Your task to perform on an android device: Search for razer thresher on amazon.com, select the first entry, add it to the cart, then select checkout. Image 0: 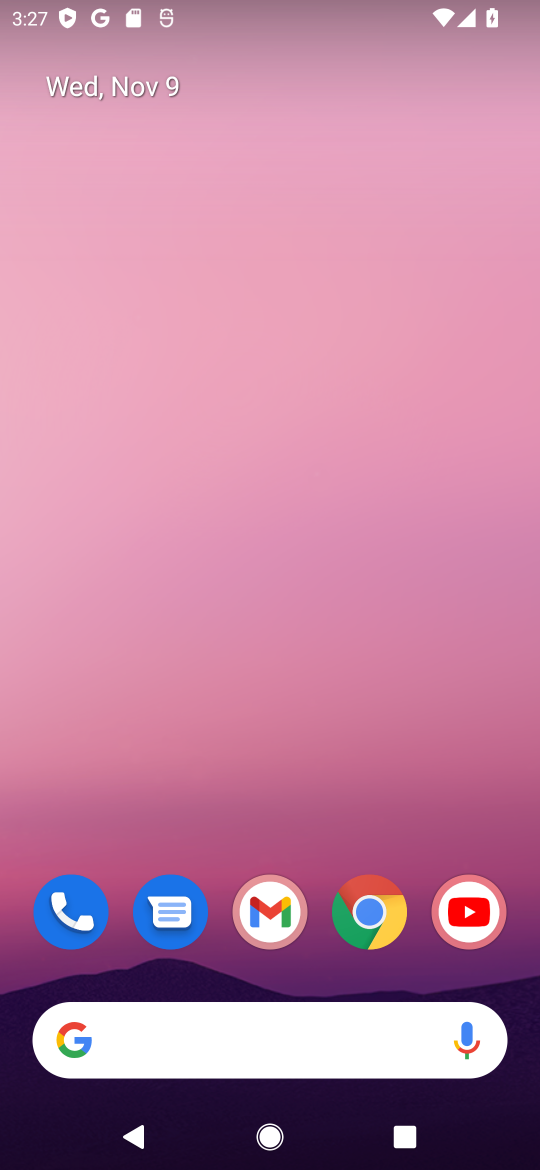
Step 0: click (374, 913)
Your task to perform on an android device: Search for razer thresher on amazon.com, select the first entry, add it to the cart, then select checkout. Image 1: 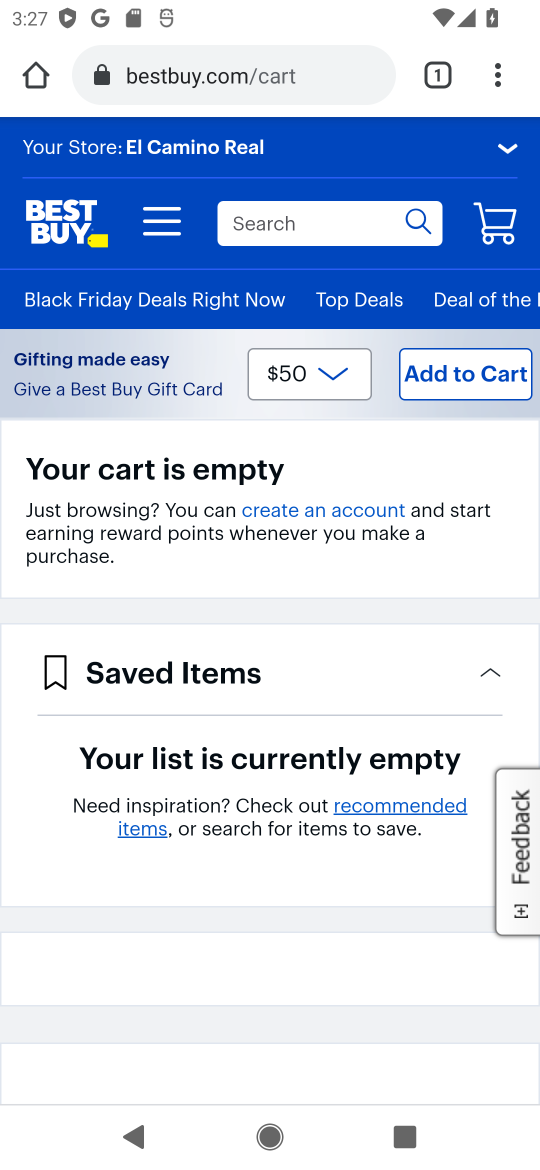
Step 1: click (310, 65)
Your task to perform on an android device: Search for razer thresher on amazon.com, select the first entry, add it to the cart, then select checkout. Image 2: 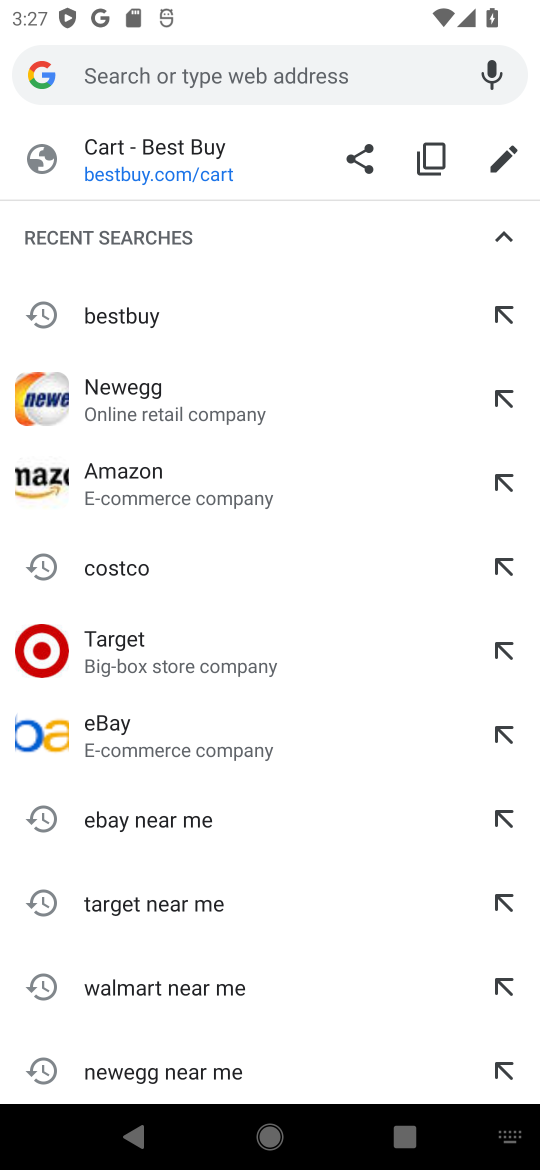
Step 2: type "amazon.com"
Your task to perform on an android device: Search for razer thresher on amazon.com, select the first entry, add it to the cart, then select checkout. Image 3: 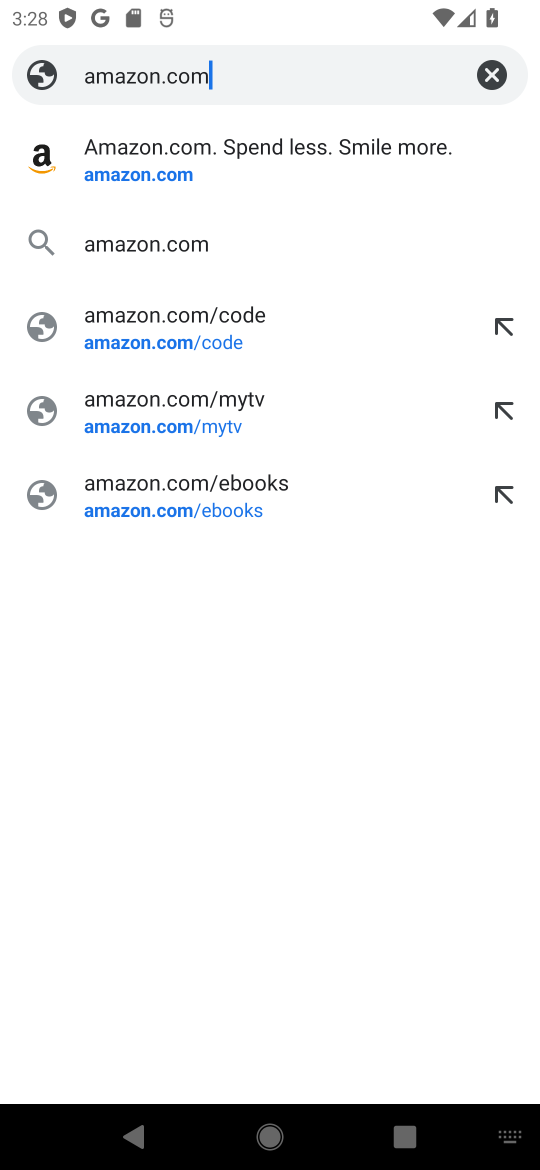
Step 3: click (181, 250)
Your task to perform on an android device: Search for razer thresher on amazon.com, select the first entry, add it to the cart, then select checkout. Image 4: 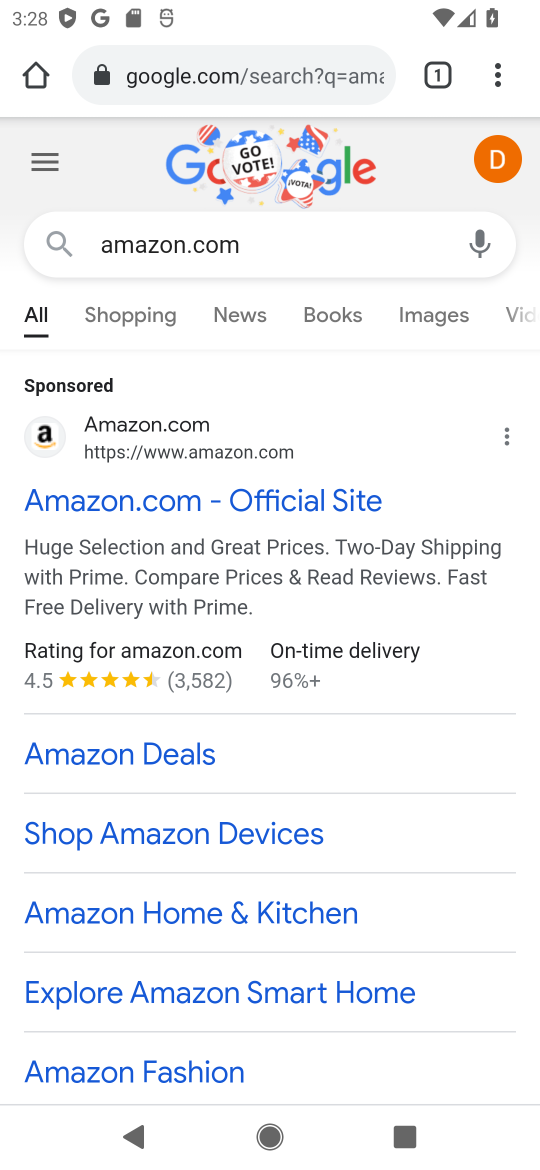
Step 4: drag from (222, 822) to (241, 430)
Your task to perform on an android device: Search for razer thresher on amazon.com, select the first entry, add it to the cart, then select checkout. Image 5: 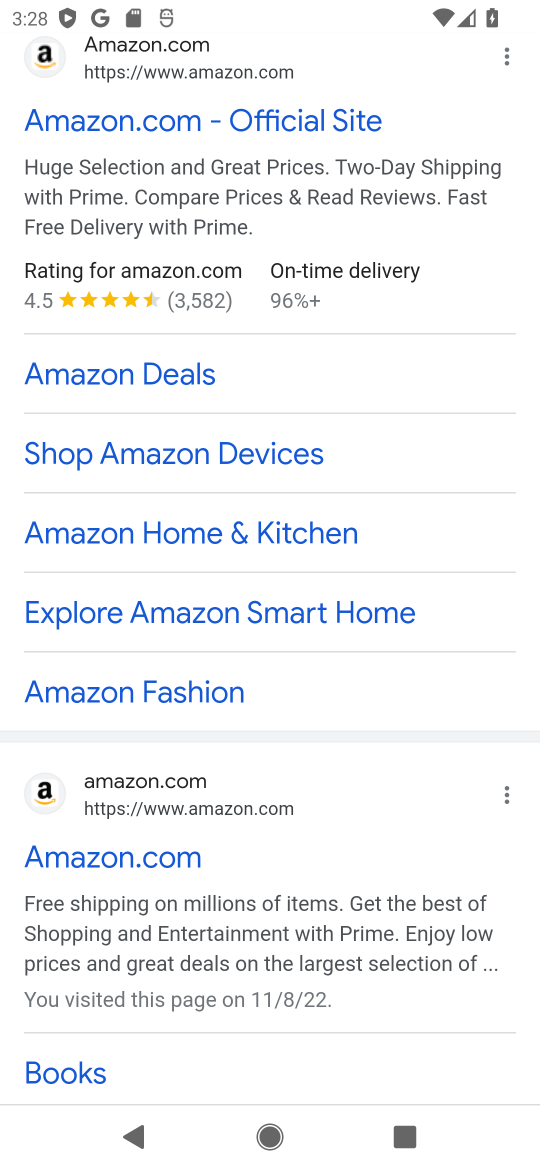
Step 5: click (162, 863)
Your task to perform on an android device: Search for razer thresher on amazon.com, select the first entry, add it to the cart, then select checkout. Image 6: 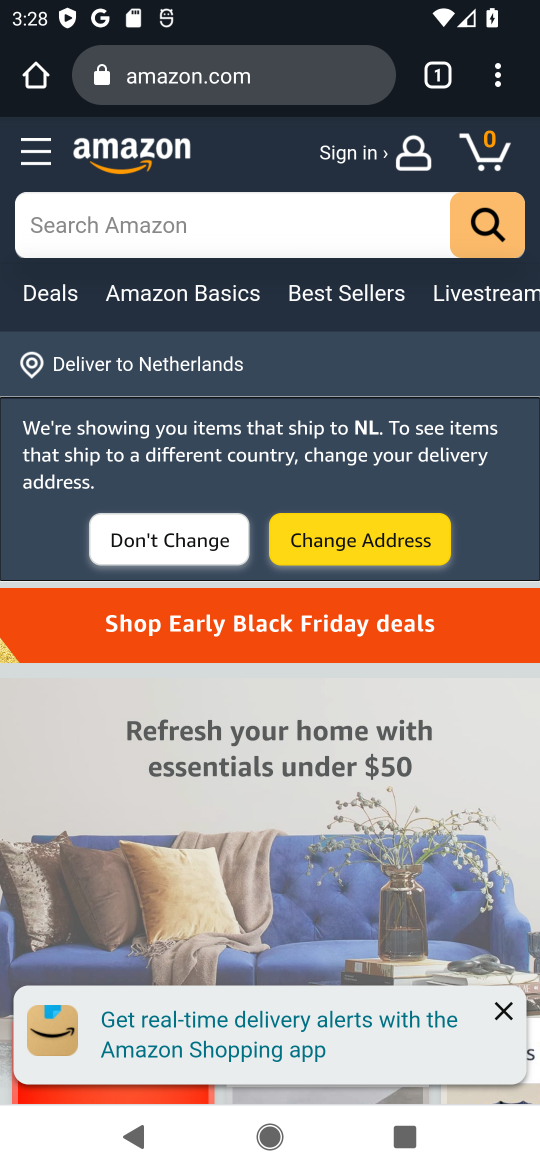
Step 6: click (253, 235)
Your task to perform on an android device: Search for razer thresher on amazon.com, select the first entry, add it to the cart, then select checkout. Image 7: 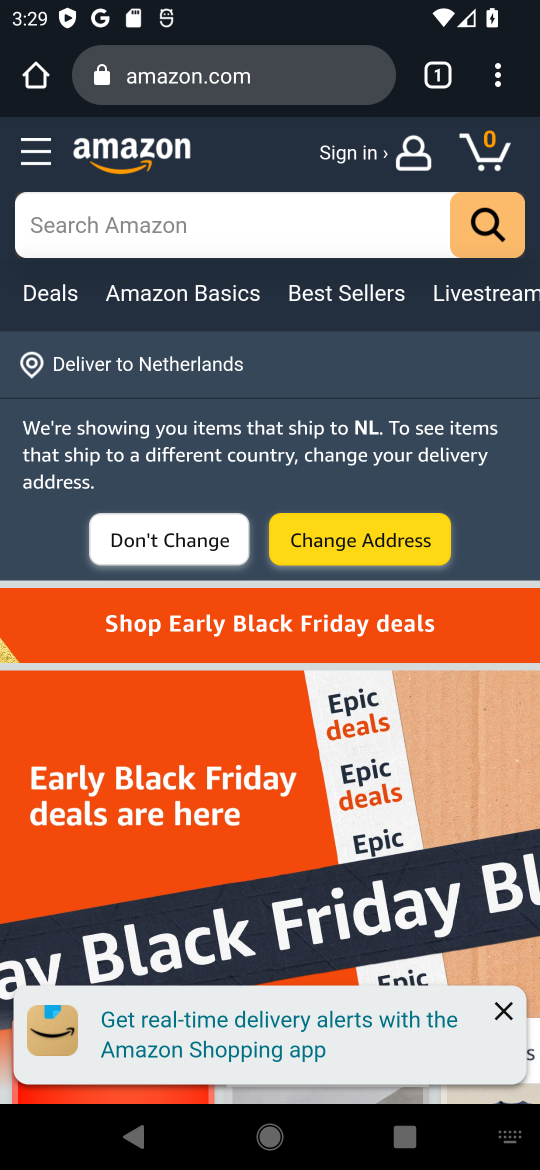
Step 7: type "razer thresher"
Your task to perform on an android device: Search for razer thresher on amazon.com, select the first entry, add it to the cart, then select checkout. Image 8: 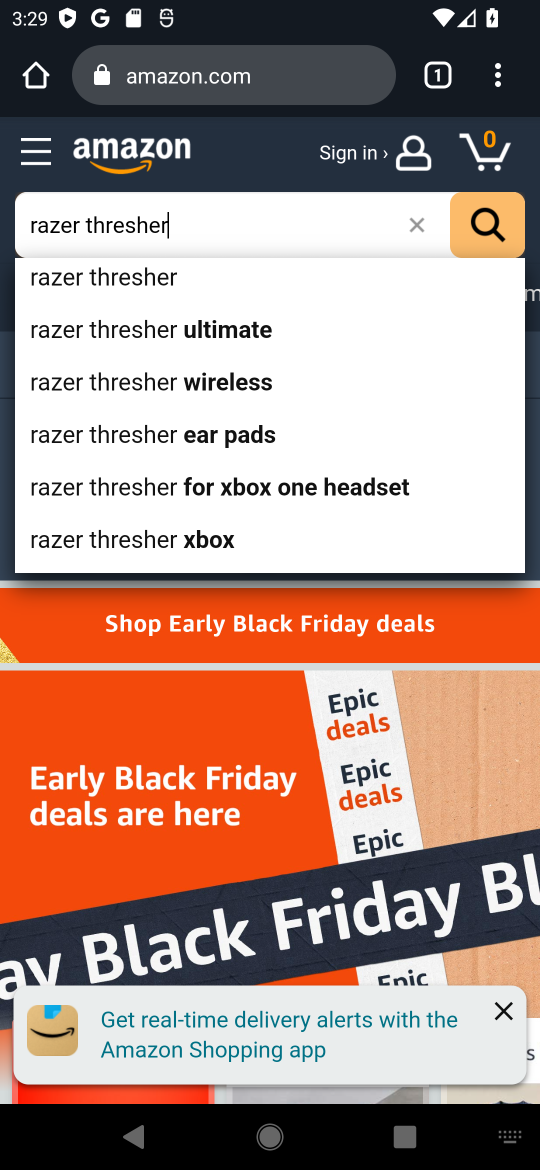
Step 8: click (137, 270)
Your task to perform on an android device: Search for razer thresher on amazon.com, select the first entry, add it to the cart, then select checkout. Image 9: 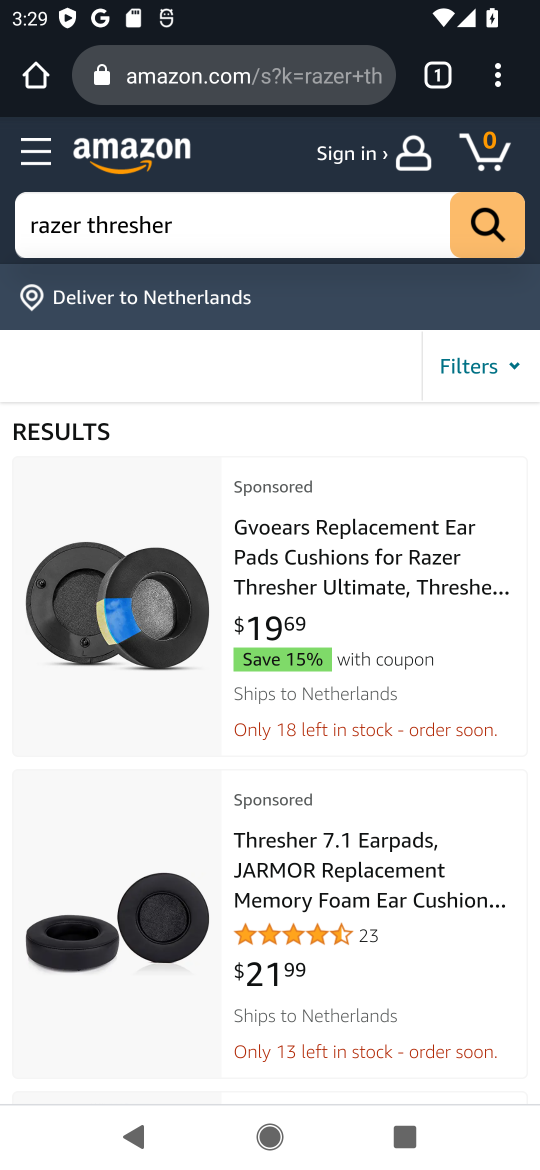
Step 9: click (350, 557)
Your task to perform on an android device: Search for razer thresher on amazon.com, select the first entry, add it to the cart, then select checkout. Image 10: 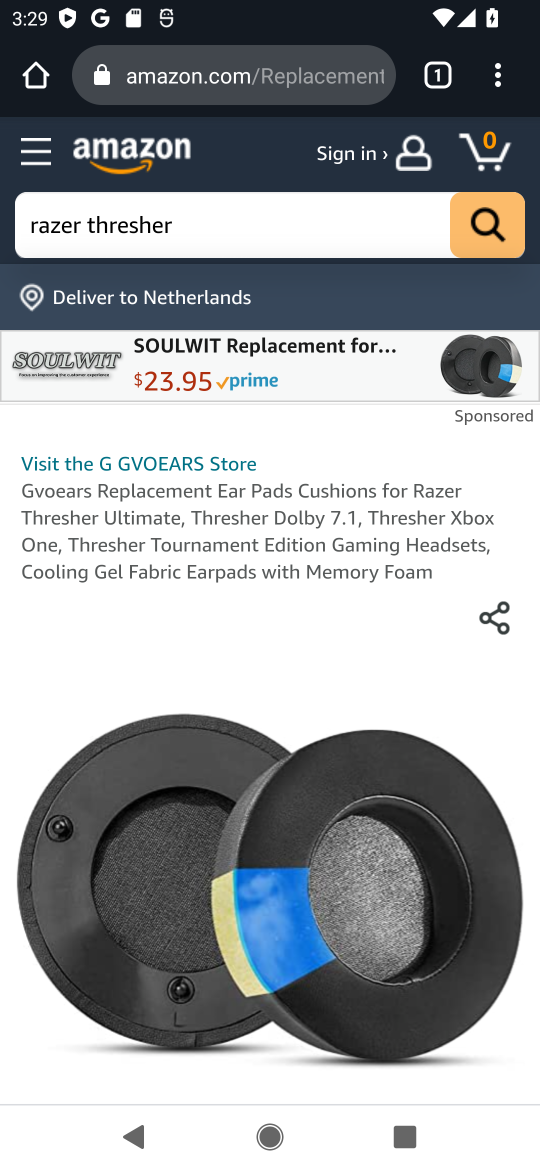
Step 10: drag from (288, 864) to (363, 471)
Your task to perform on an android device: Search for razer thresher on amazon.com, select the first entry, add it to the cart, then select checkout. Image 11: 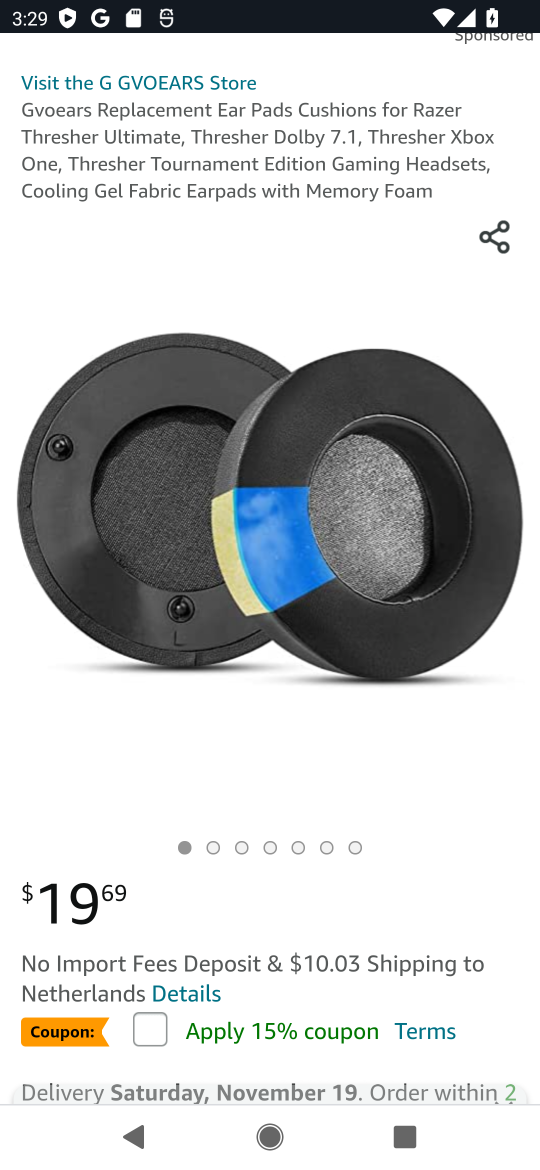
Step 11: drag from (311, 624) to (343, 445)
Your task to perform on an android device: Search for razer thresher on amazon.com, select the first entry, add it to the cart, then select checkout. Image 12: 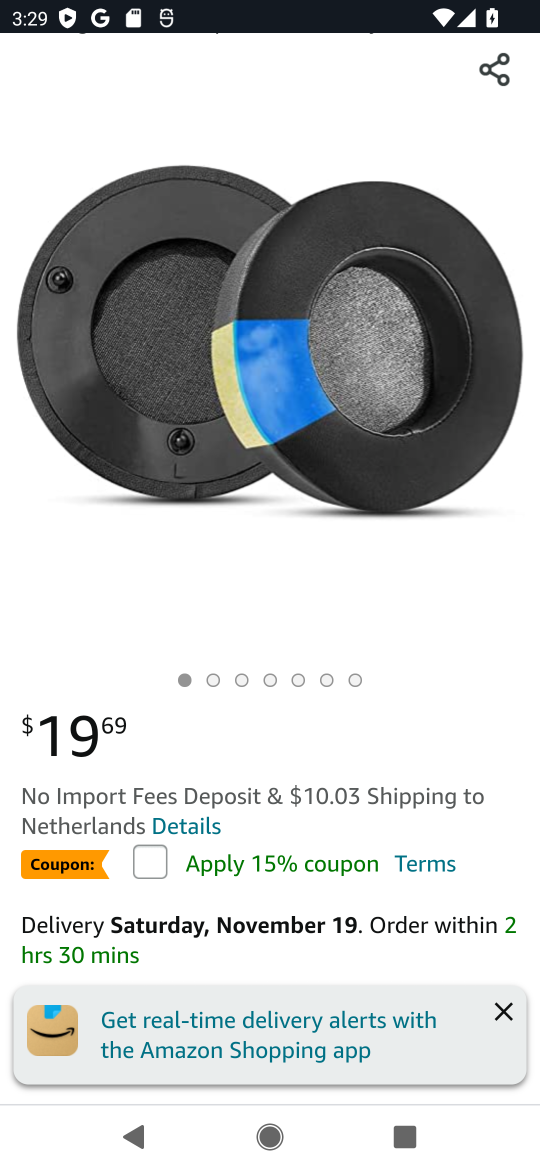
Step 12: drag from (329, 737) to (367, 282)
Your task to perform on an android device: Search for razer thresher on amazon.com, select the first entry, add it to the cart, then select checkout. Image 13: 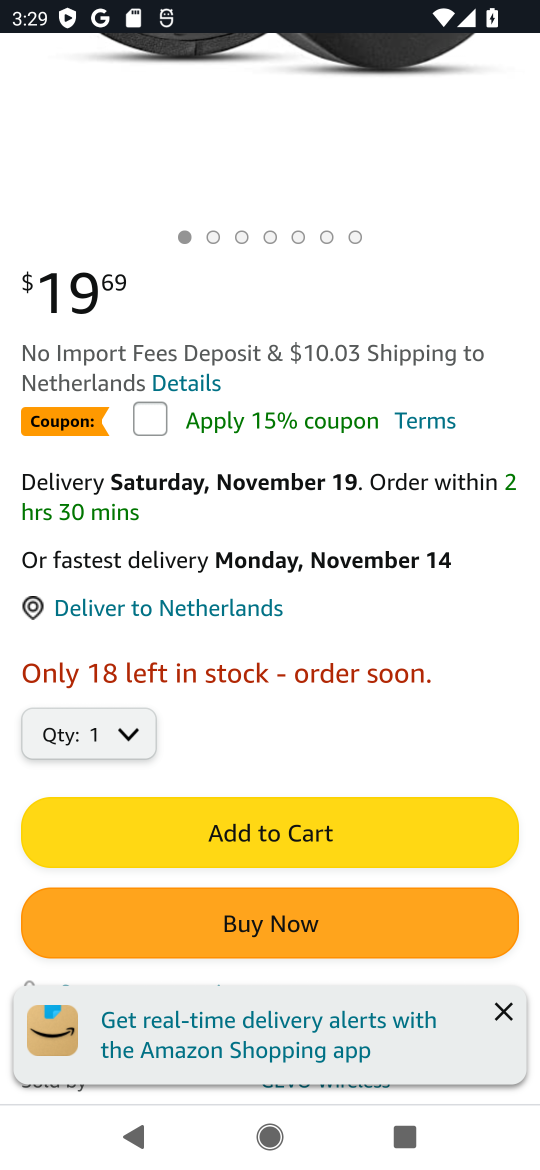
Step 13: click (227, 836)
Your task to perform on an android device: Search for razer thresher on amazon.com, select the first entry, add it to the cart, then select checkout. Image 14: 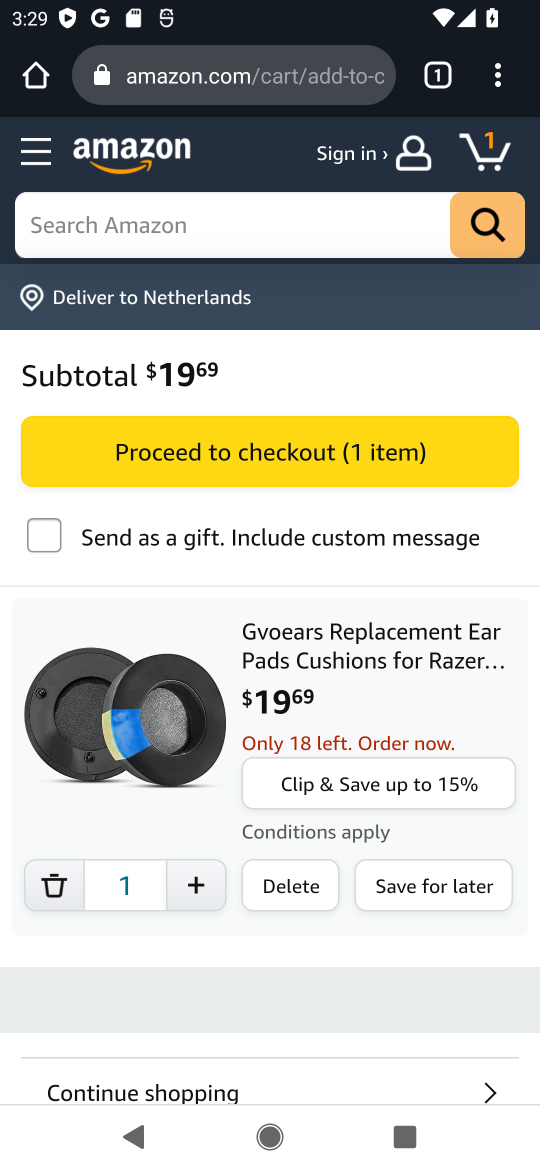
Step 14: click (272, 462)
Your task to perform on an android device: Search for razer thresher on amazon.com, select the first entry, add it to the cart, then select checkout. Image 15: 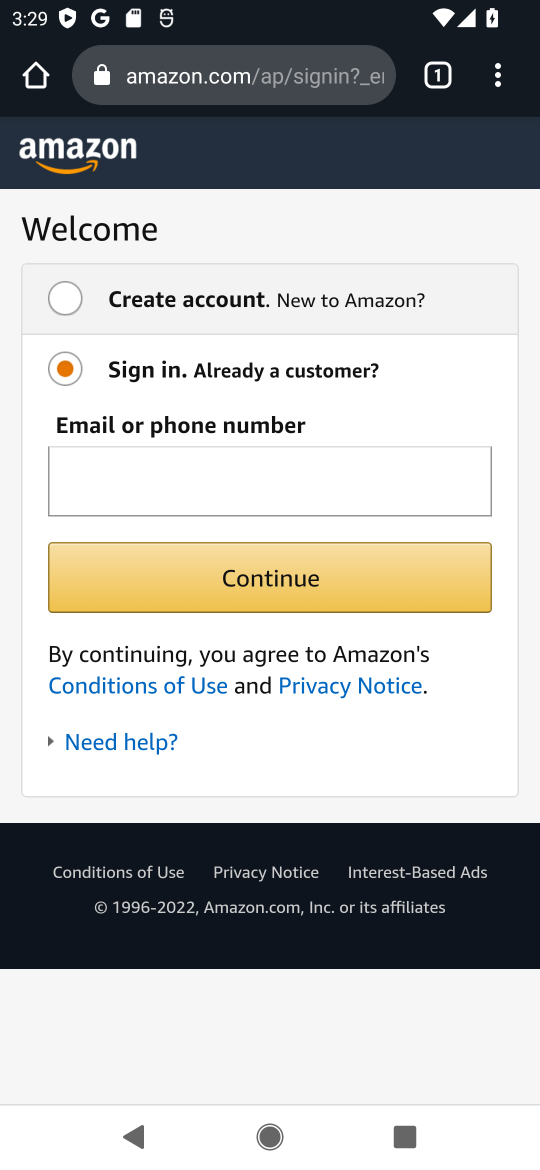
Step 15: task complete